Your task to perform on an android device: Is it going to rain today? Image 0: 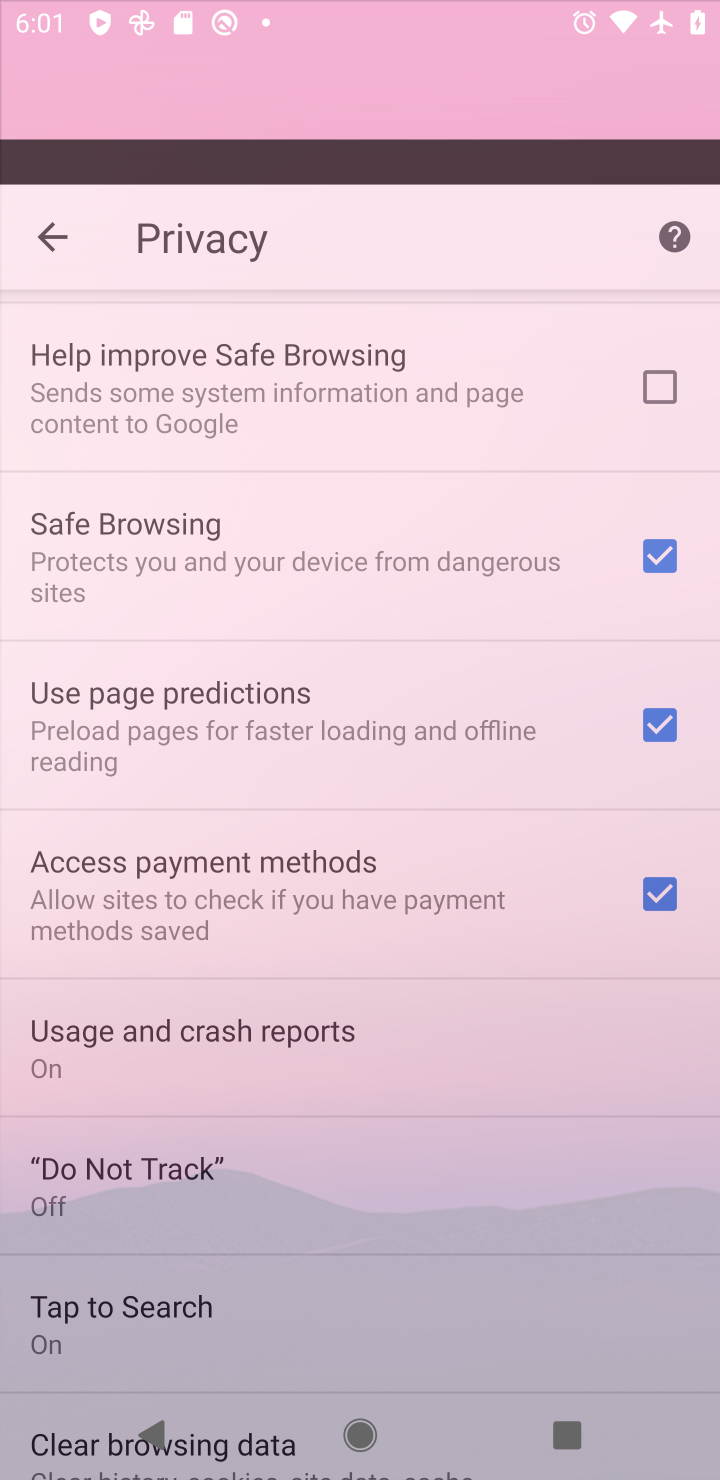
Step 0: press home button
Your task to perform on an android device: Is it going to rain today? Image 1: 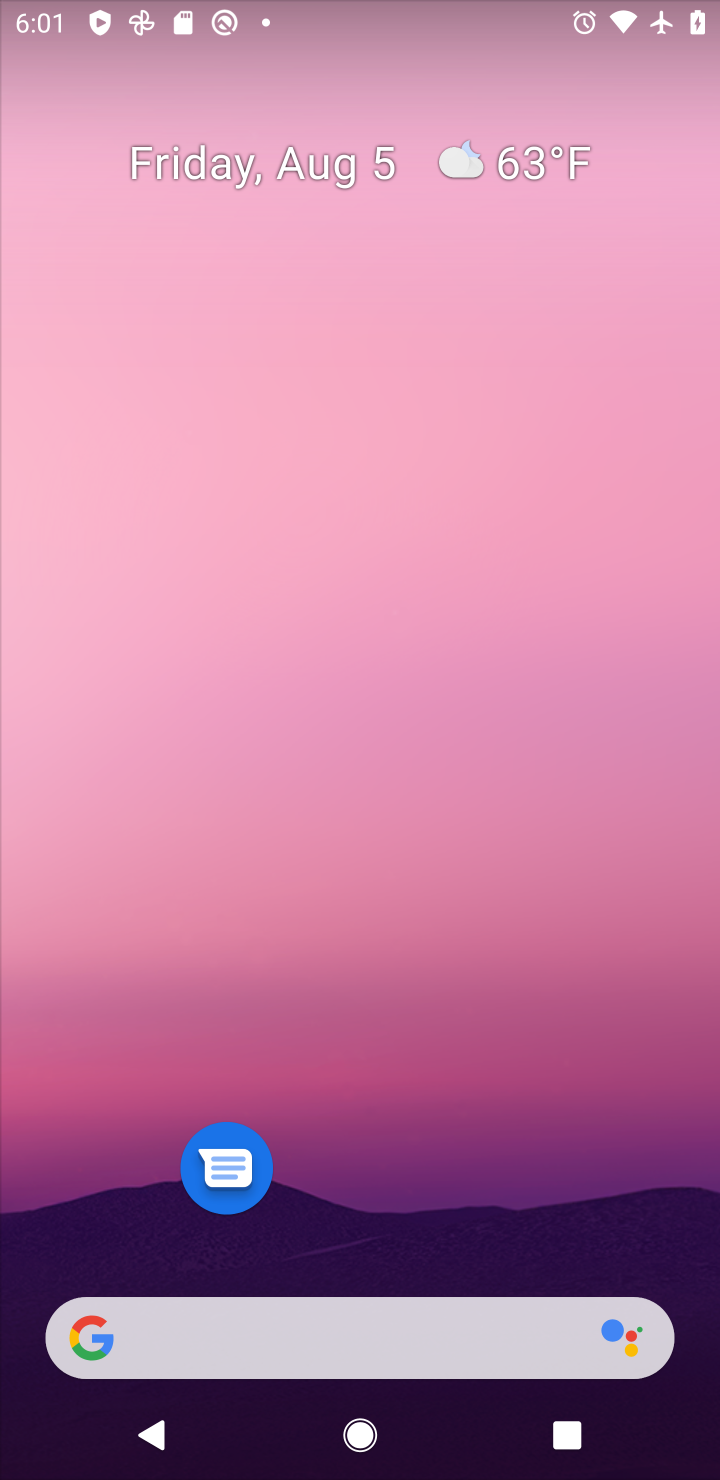
Step 1: click (72, 1347)
Your task to perform on an android device: Is it going to rain today? Image 2: 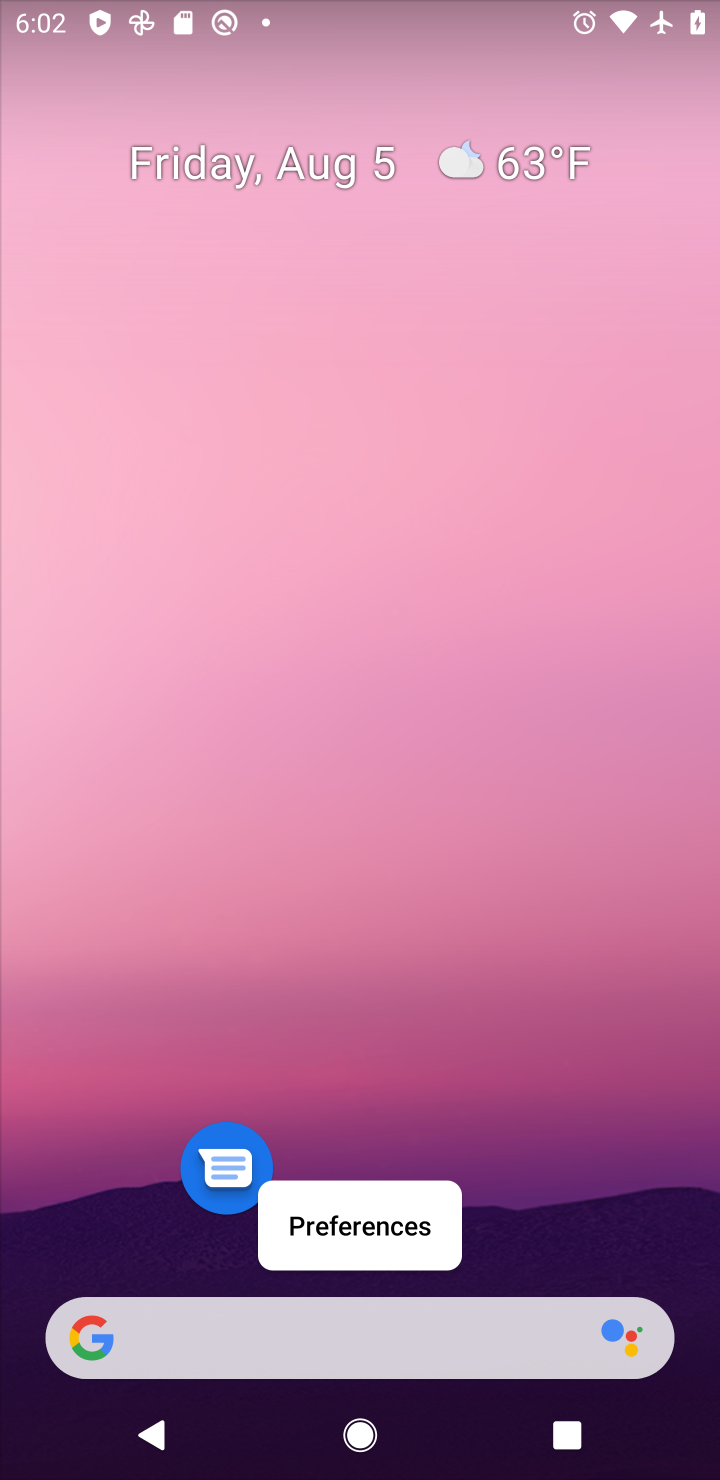
Step 2: click (96, 1341)
Your task to perform on an android device: Is it going to rain today? Image 3: 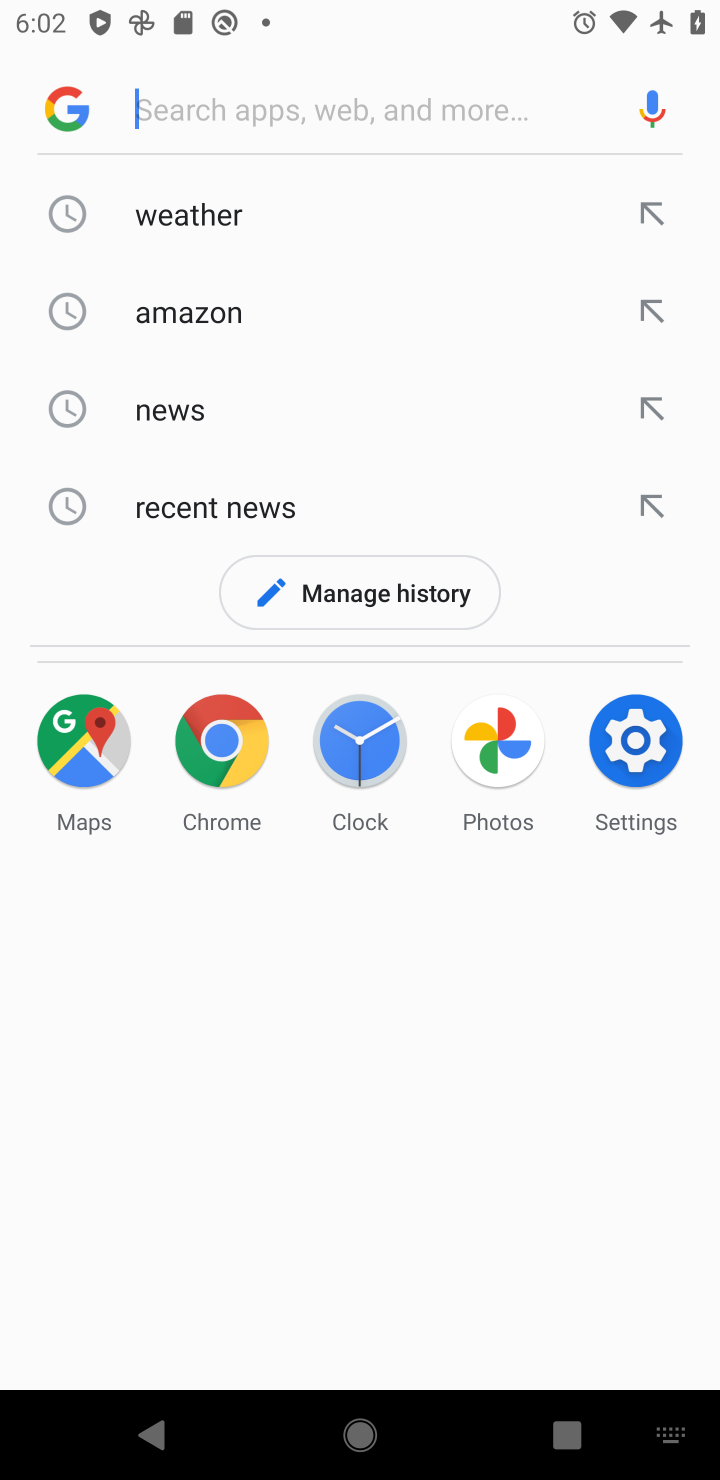
Step 3: type " rain today?"
Your task to perform on an android device: Is it going to rain today? Image 4: 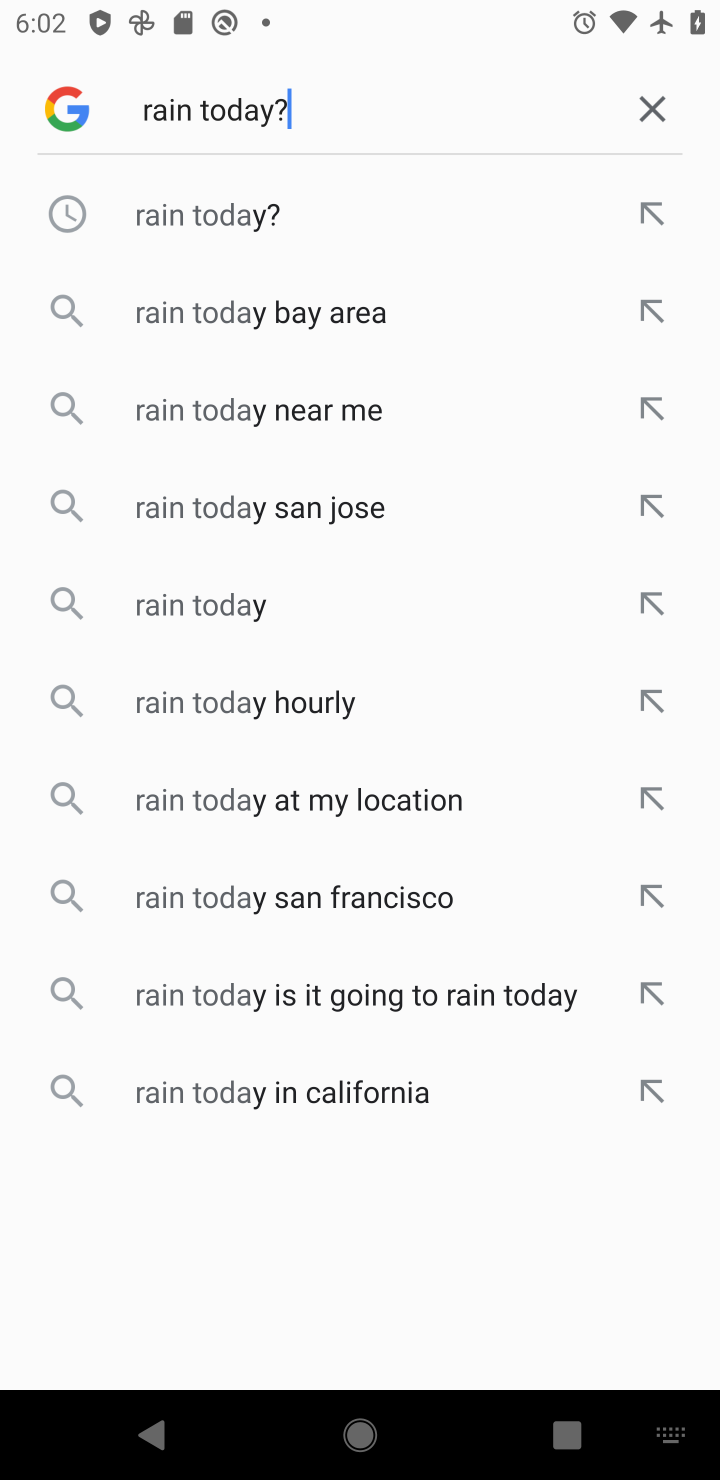
Step 4: press enter
Your task to perform on an android device: Is it going to rain today? Image 5: 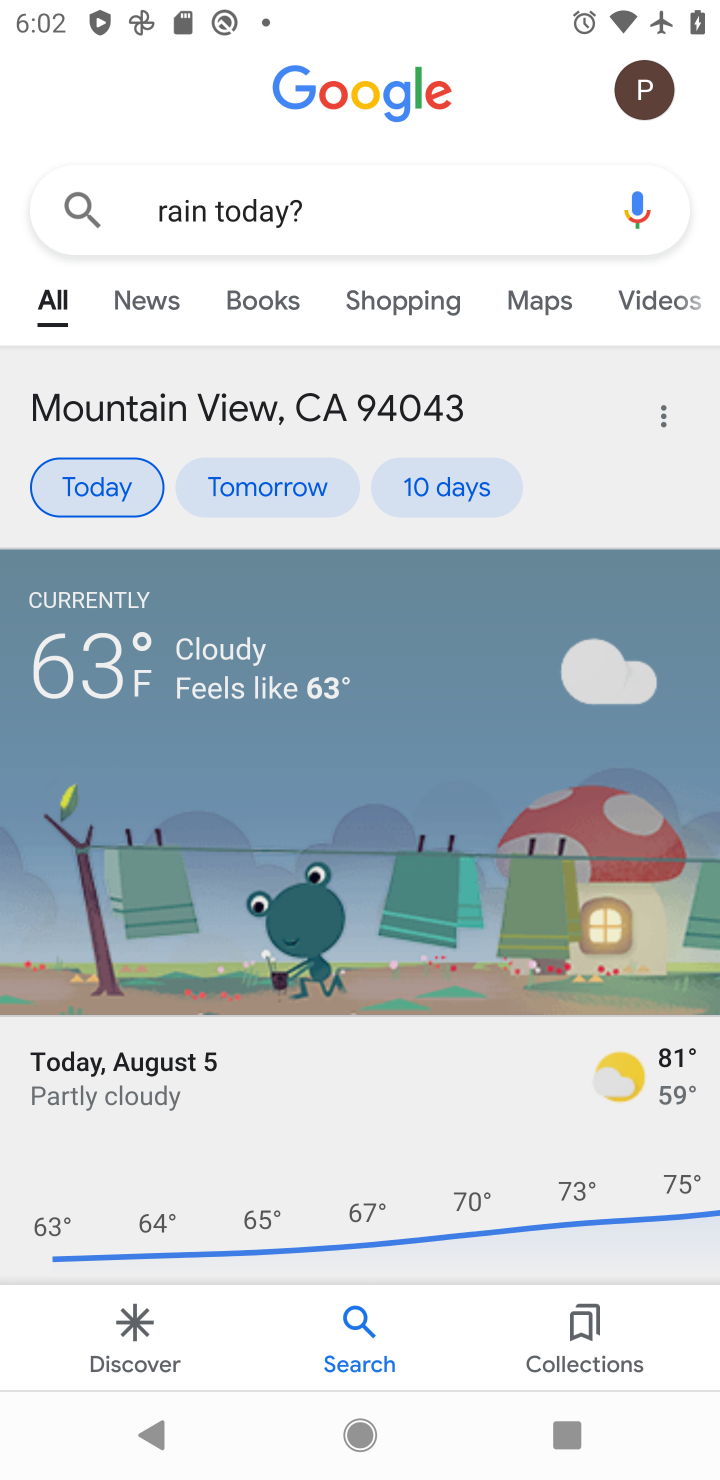
Step 5: task complete